Your task to perform on an android device: Open Google Chrome and open the bookmarks view Image 0: 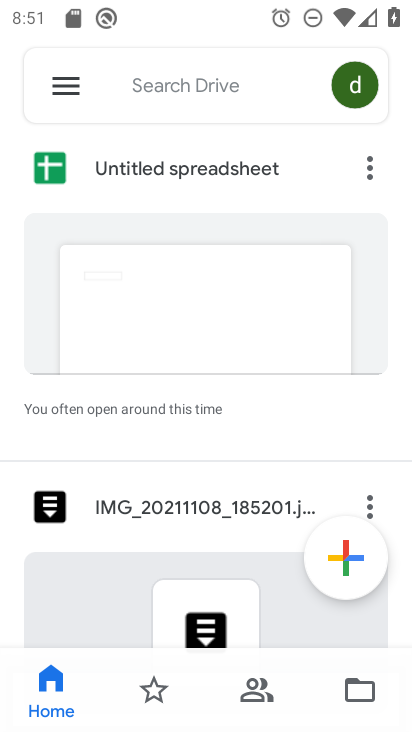
Step 0: press home button
Your task to perform on an android device: Open Google Chrome and open the bookmarks view Image 1: 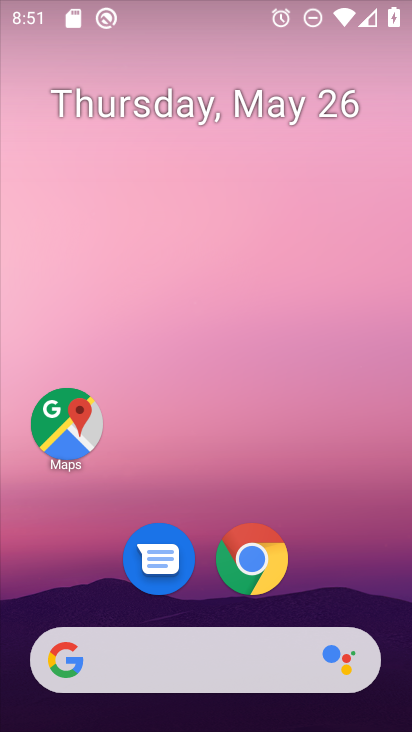
Step 1: click (262, 557)
Your task to perform on an android device: Open Google Chrome and open the bookmarks view Image 2: 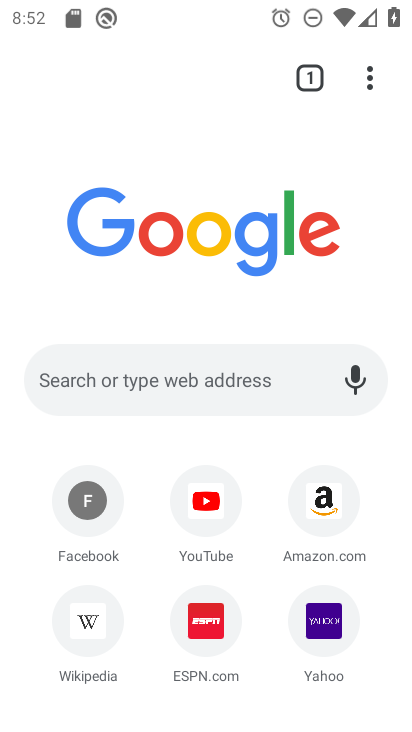
Step 2: click (360, 74)
Your task to perform on an android device: Open Google Chrome and open the bookmarks view Image 3: 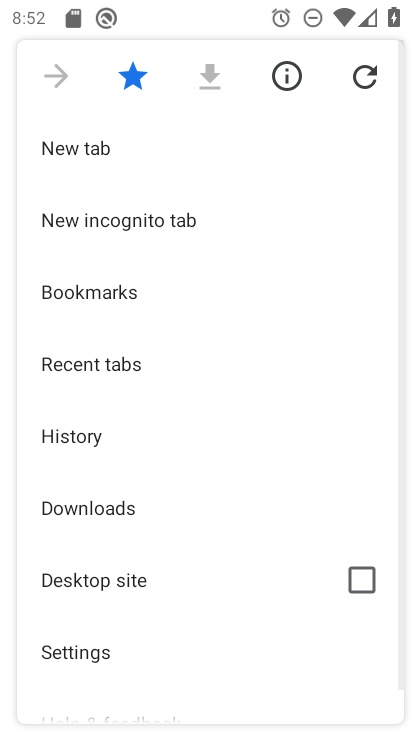
Step 3: click (124, 307)
Your task to perform on an android device: Open Google Chrome and open the bookmarks view Image 4: 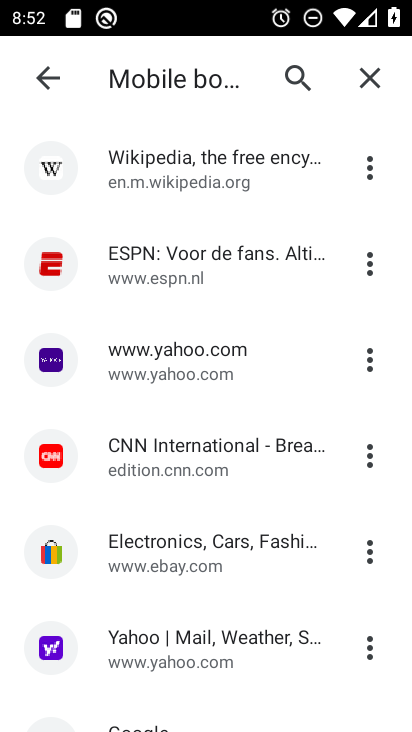
Step 4: click (167, 372)
Your task to perform on an android device: Open Google Chrome and open the bookmarks view Image 5: 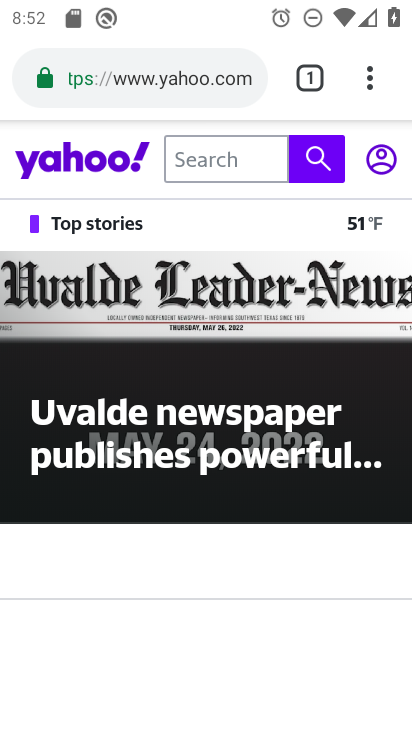
Step 5: task complete